Your task to perform on an android device: Find coffee shops on Maps Image 0: 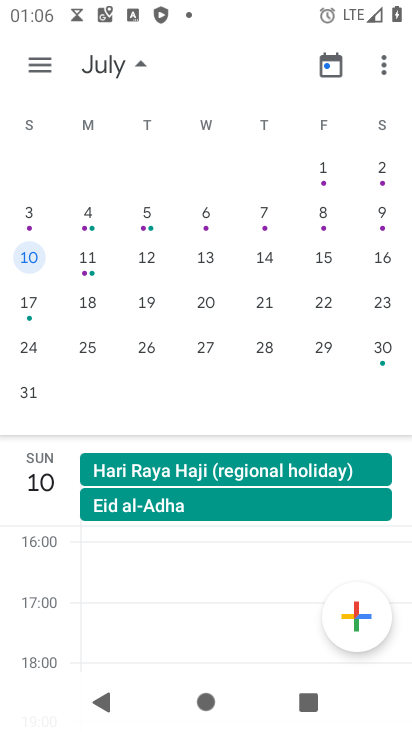
Step 0: press home button
Your task to perform on an android device: Find coffee shops on Maps Image 1: 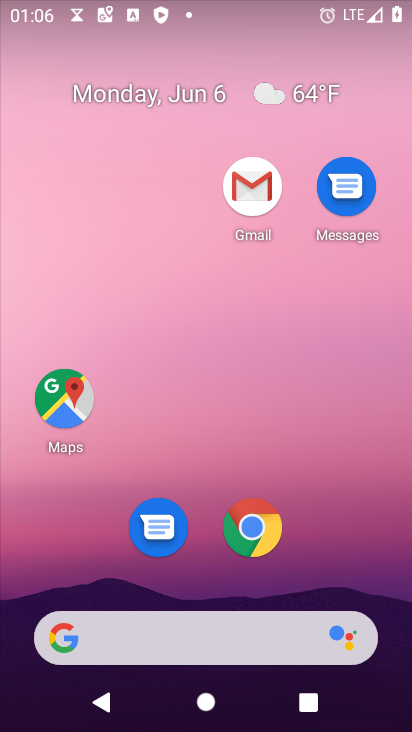
Step 1: click (47, 398)
Your task to perform on an android device: Find coffee shops on Maps Image 2: 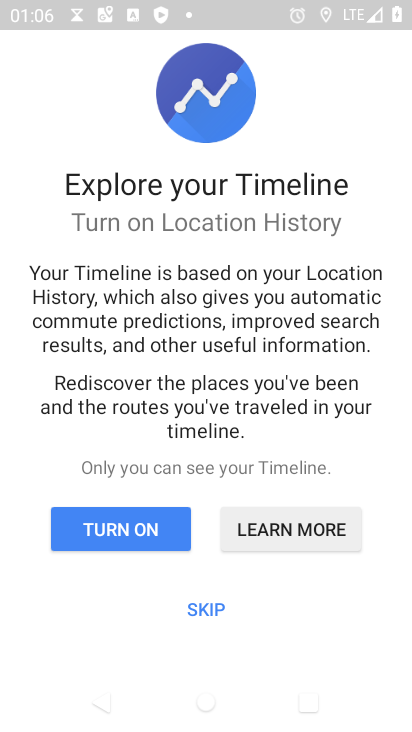
Step 2: click (196, 603)
Your task to perform on an android device: Find coffee shops on Maps Image 3: 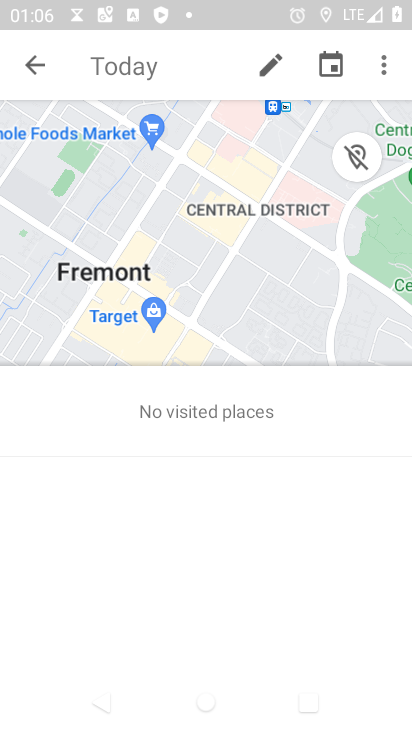
Step 3: click (91, 52)
Your task to perform on an android device: Find coffee shops on Maps Image 4: 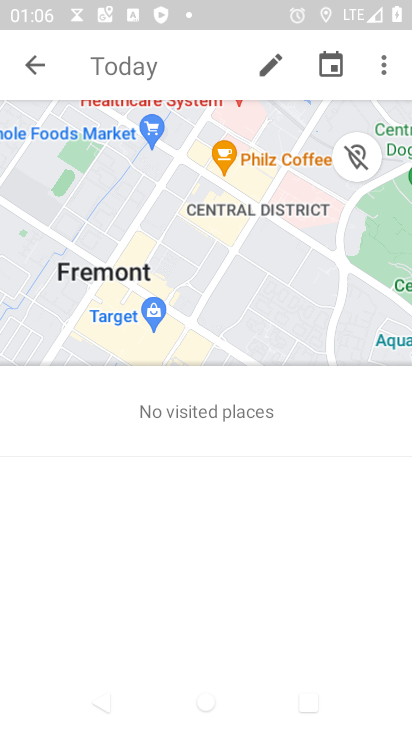
Step 4: click (99, 60)
Your task to perform on an android device: Find coffee shops on Maps Image 5: 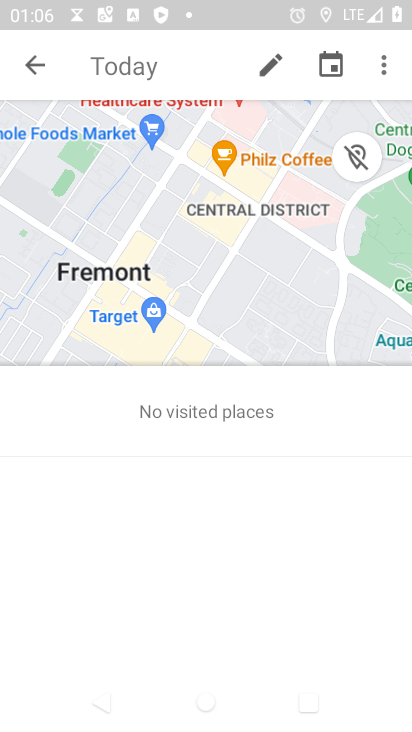
Step 5: click (99, 60)
Your task to perform on an android device: Find coffee shops on Maps Image 6: 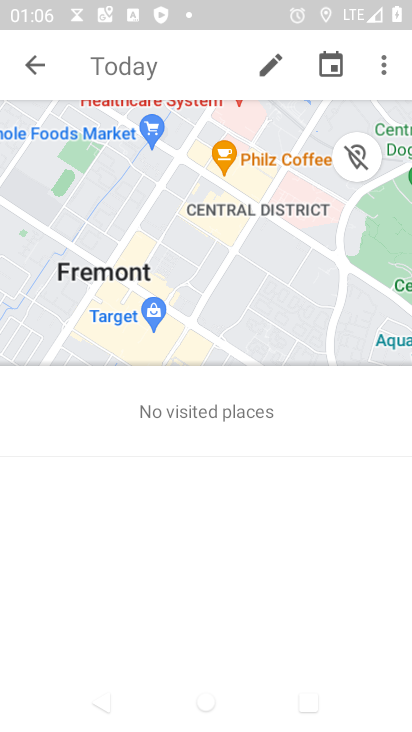
Step 6: drag from (166, 7) to (190, 582)
Your task to perform on an android device: Find coffee shops on Maps Image 7: 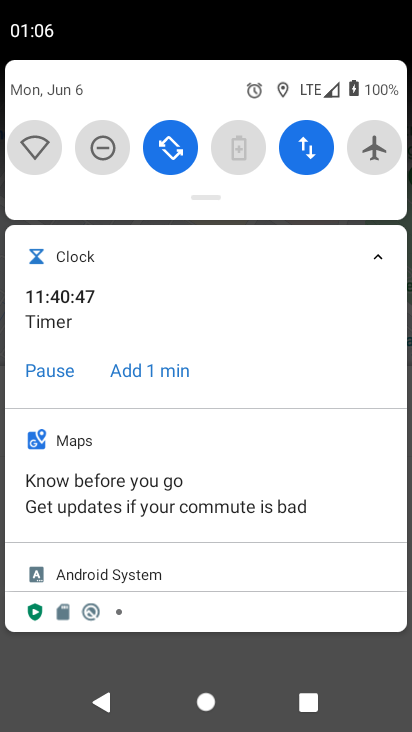
Step 7: click (30, 152)
Your task to perform on an android device: Find coffee shops on Maps Image 8: 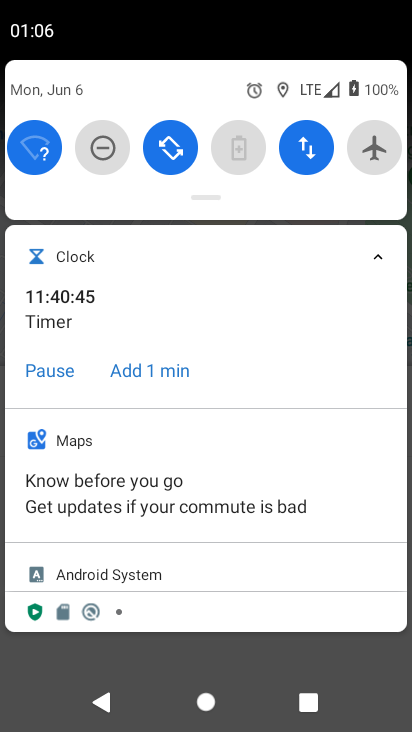
Step 8: drag from (137, 678) to (160, 111)
Your task to perform on an android device: Find coffee shops on Maps Image 9: 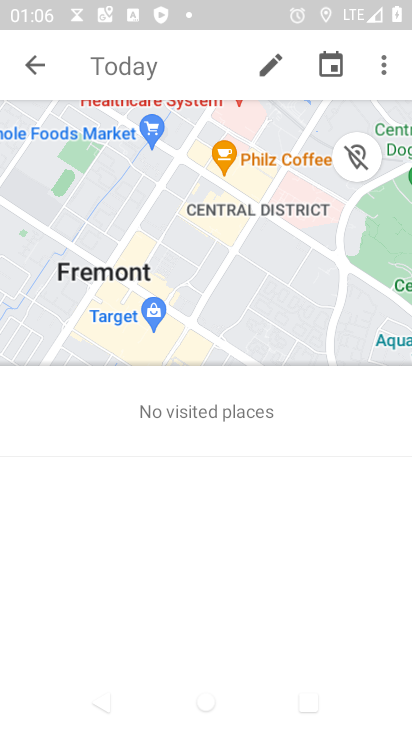
Step 9: click (98, 67)
Your task to perform on an android device: Find coffee shops on Maps Image 10: 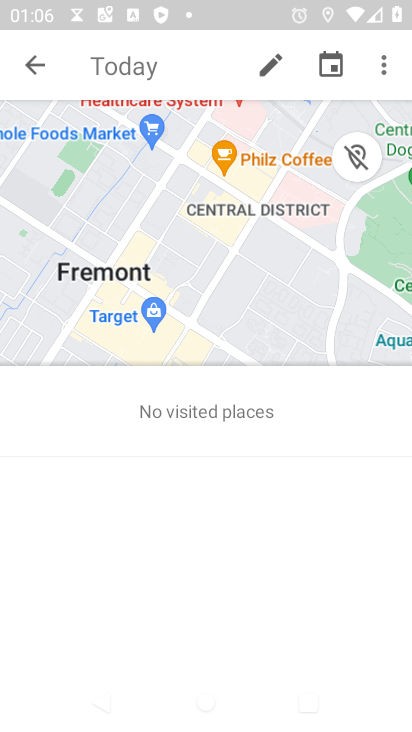
Step 10: click (120, 55)
Your task to perform on an android device: Find coffee shops on Maps Image 11: 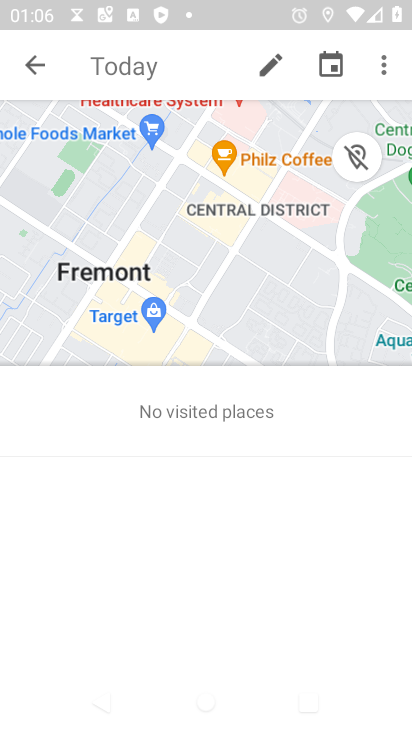
Step 11: click (120, 55)
Your task to perform on an android device: Find coffee shops on Maps Image 12: 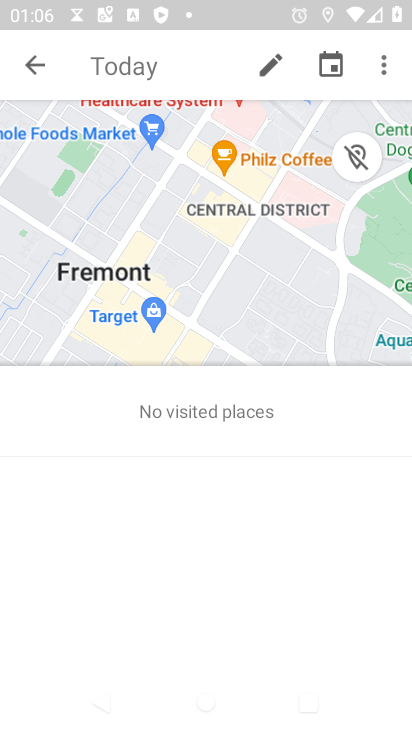
Step 12: click (16, 65)
Your task to perform on an android device: Find coffee shops on Maps Image 13: 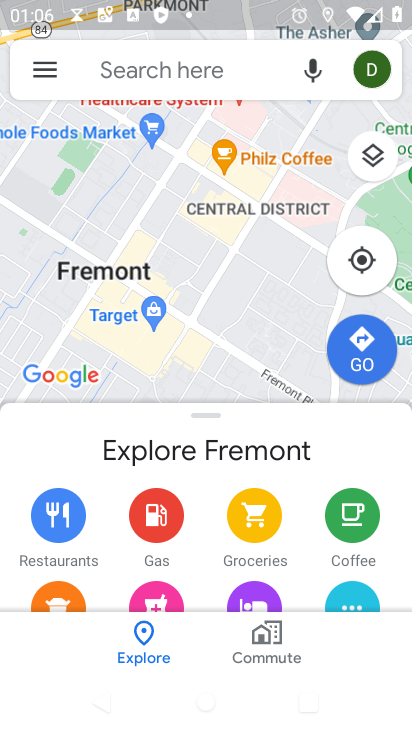
Step 13: click (112, 67)
Your task to perform on an android device: Find coffee shops on Maps Image 14: 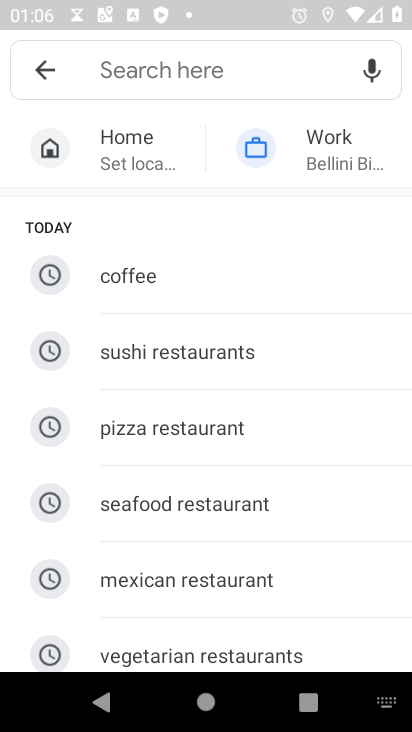
Step 14: type "coffee shops"
Your task to perform on an android device: Find coffee shops on Maps Image 15: 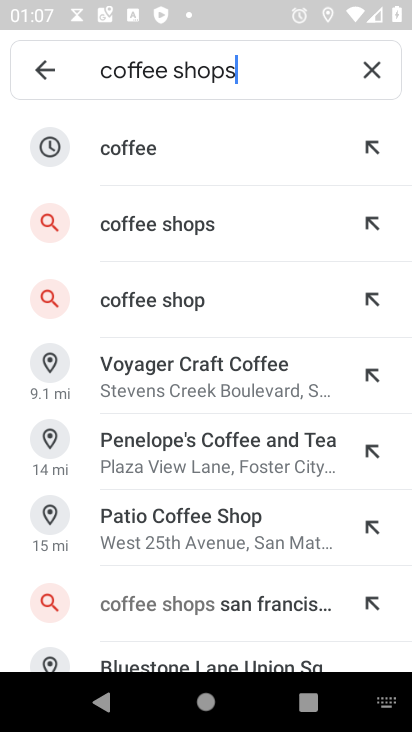
Step 15: click (153, 214)
Your task to perform on an android device: Find coffee shops on Maps Image 16: 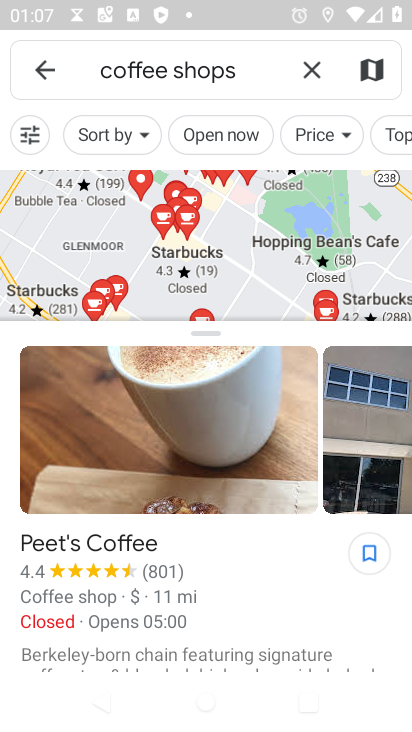
Step 16: task complete